Your task to perform on an android device: Search for "custom wallet" on Etsy. Image 0: 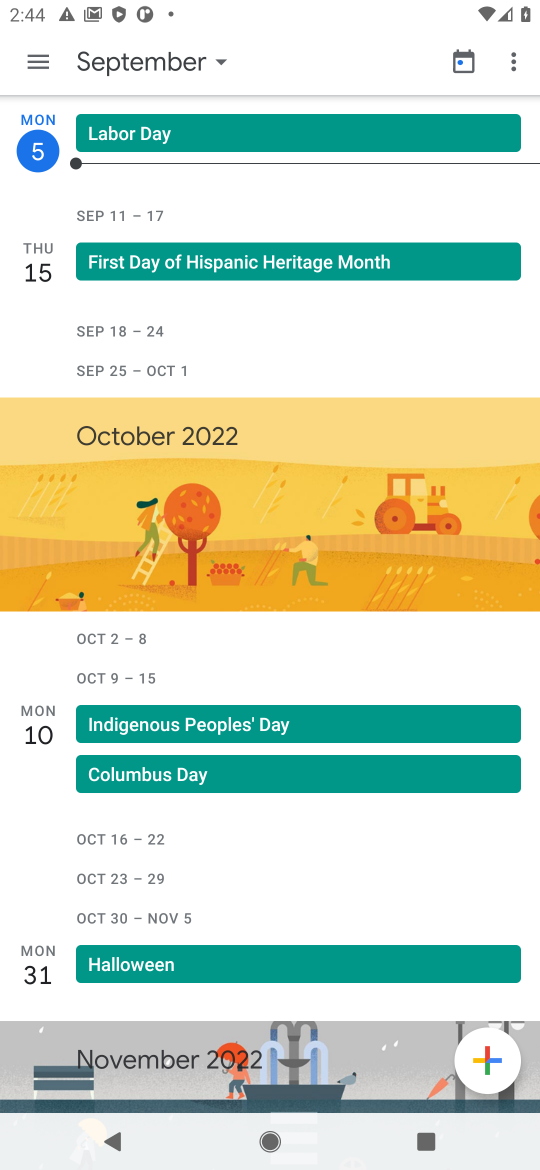
Step 0: press home button
Your task to perform on an android device: Search for "custom wallet" on Etsy. Image 1: 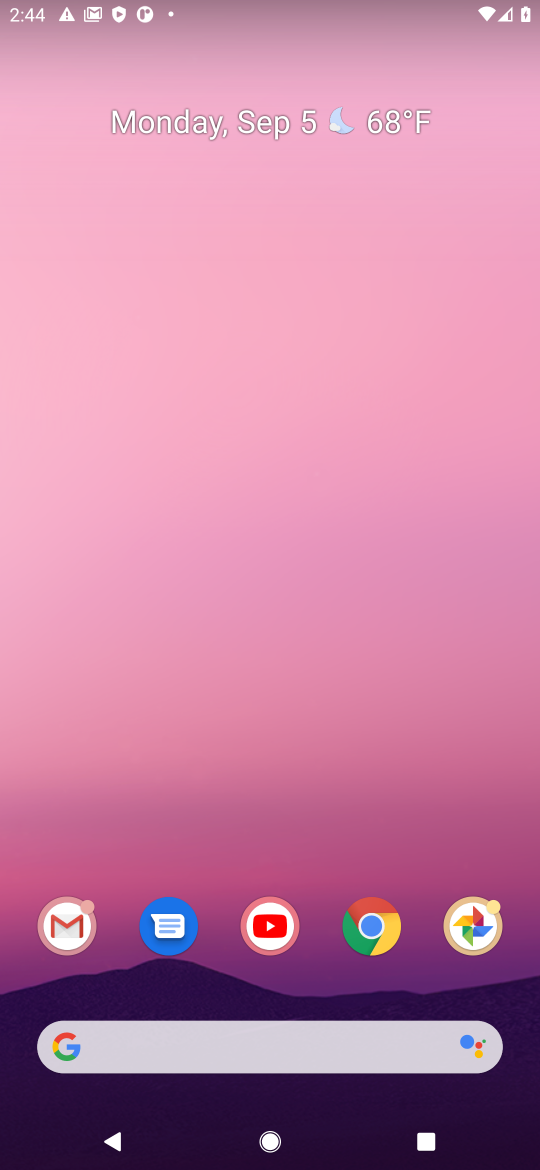
Step 1: click (371, 931)
Your task to perform on an android device: Search for "custom wallet" on Etsy. Image 2: 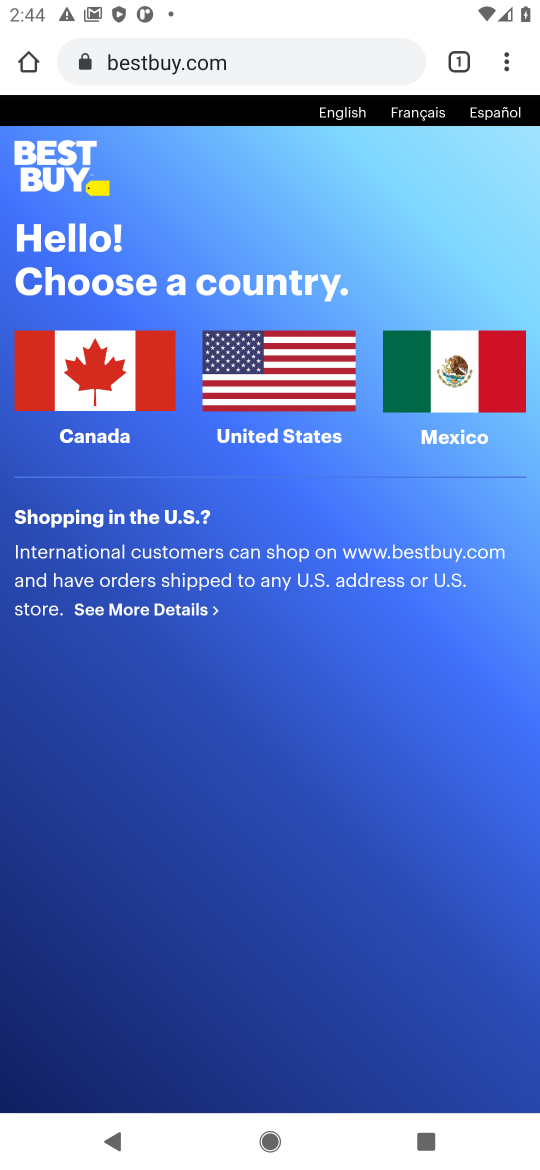
Step 2: click (215, 69)
Your task to perform on an android device: Search for "custom wallet" on Etsy. Image 3: 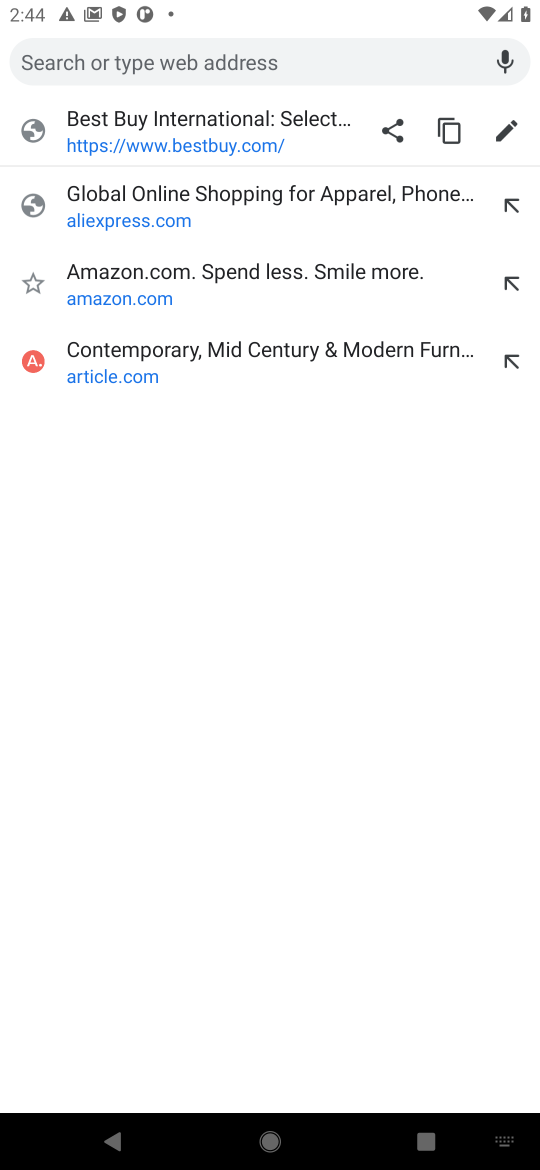
Step 3: type "etsy"
Your task to perform on an android device: Search for "custom wallet" on Etsy. Image 4: 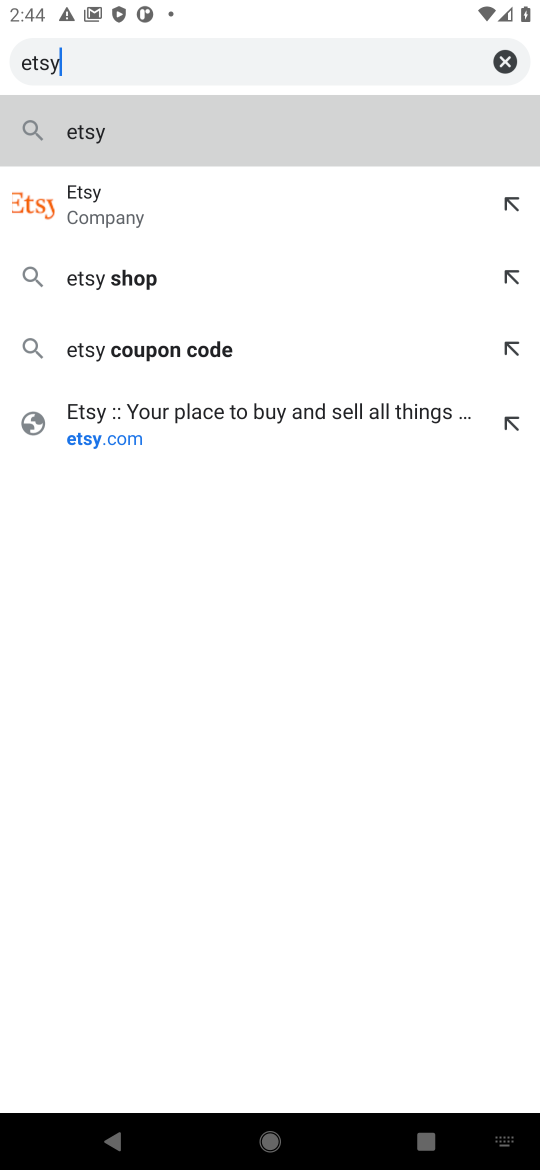
Step 4: click (173, 195)
Your task to perform on an android device: Search for "custom wallet" on Etsy. Image 5: 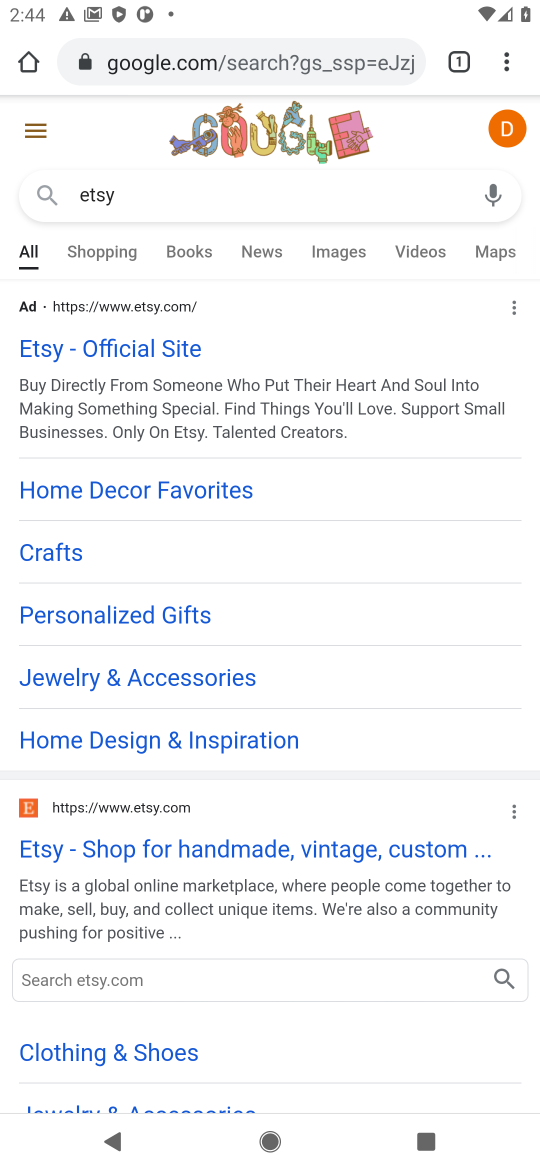
Step 5: click (131, 850)
Your task to perform on an android device: Search for "custom wallet" on Etsy. Image 6: 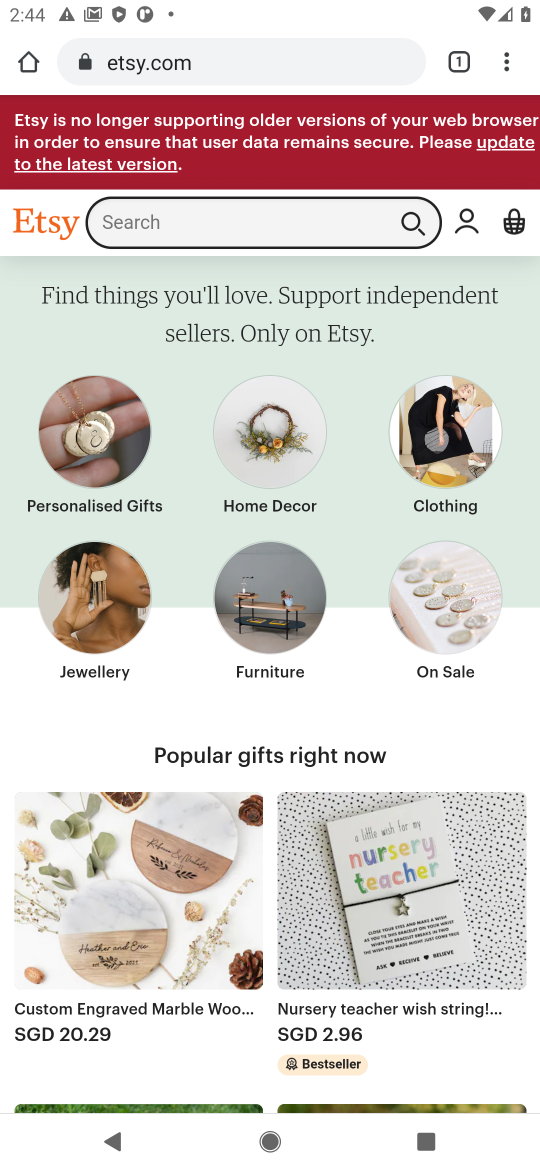
Step 6: click (155, 232)
Your task to perform on an android device: Search for "custom wallet" on Etsy. Image 7: 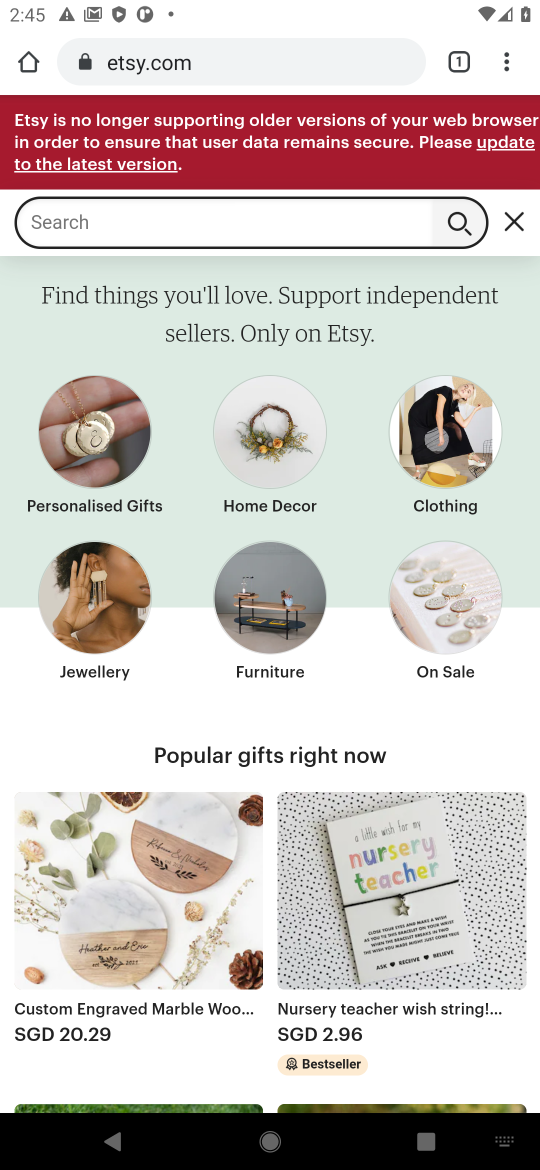
Step 7: click (282, 234)
Your task to perform on an android device: Search for "custom wallet" on Etsy. Image 8: 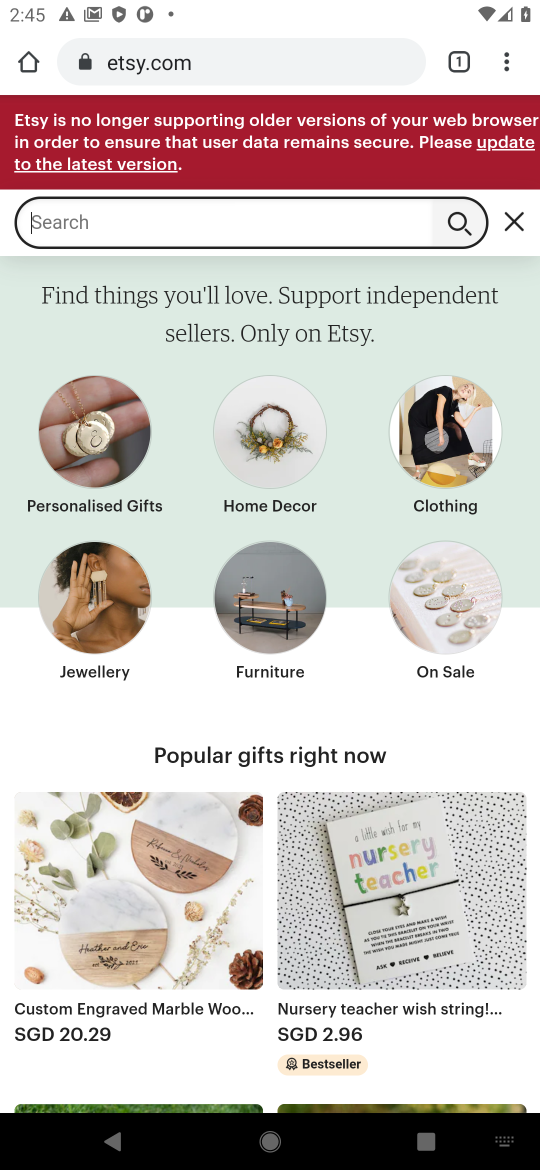
Step 8: type "custom wallet"
Your task to perform on an android device: Search for "custom wallet" on Etsy. Image 9: 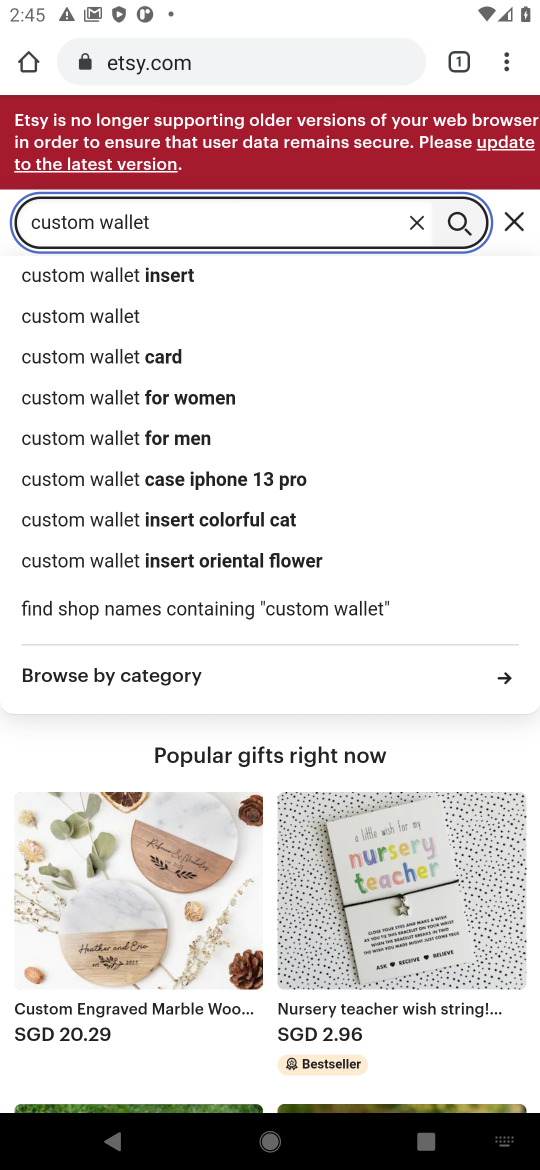
Step 9: click (110, 319)
Your task to perform on an android device: Search for "custom wallet" on Etsy. Image 10: 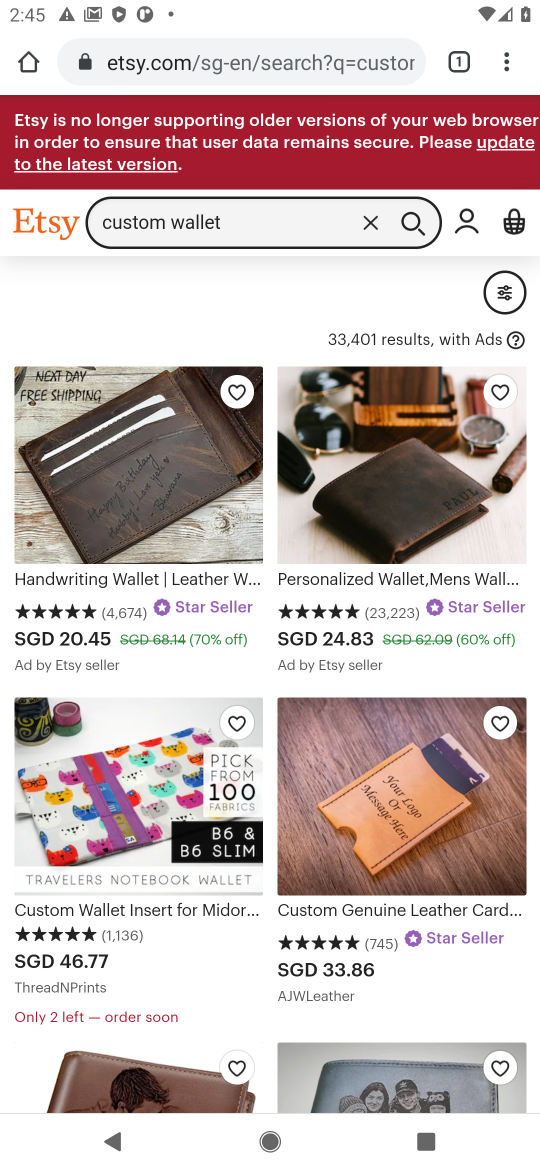
Step 10: task complete